Your task to perform on an android device: Open Maps and search for coffee Image 0: 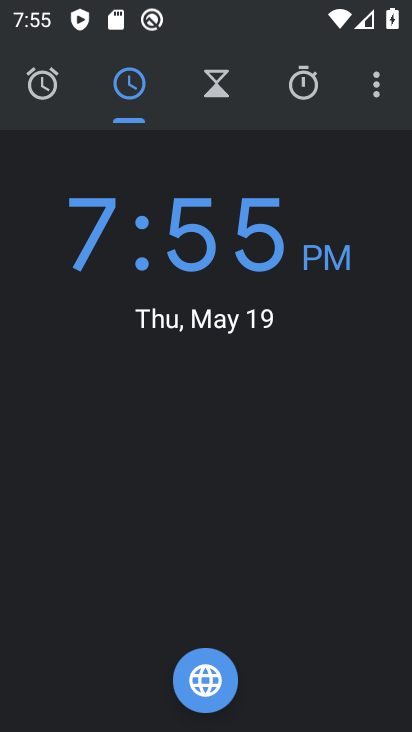
Step 0: press home button
Your task to perform on an android device: Open Maps and search for coffee Image 1: 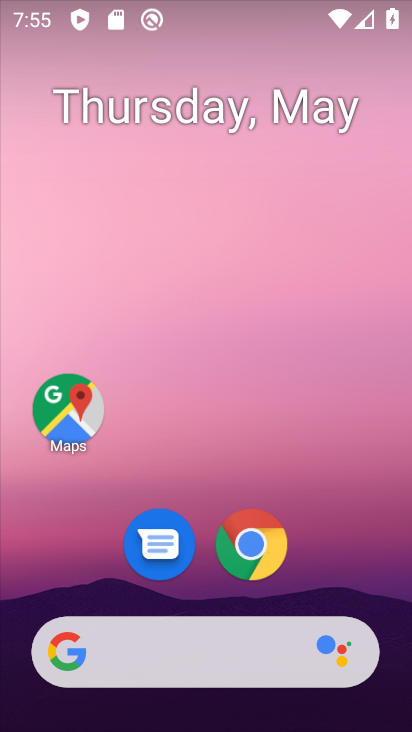
Step 1: click (80, 414)
Your task to perform on an android device: Open Maps and search for coffee Image 2: 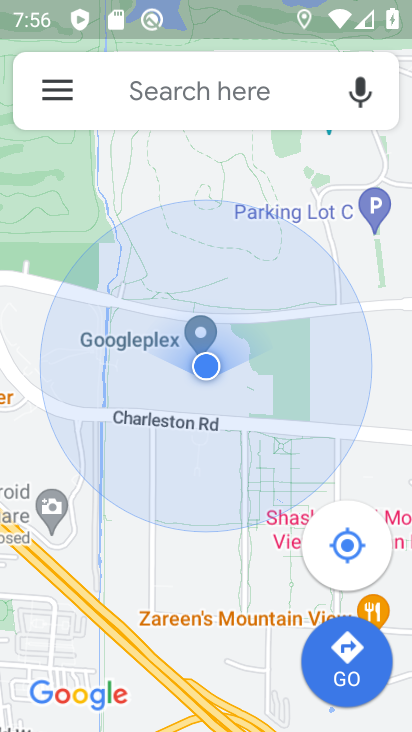
Step 2: click (251, 91)
Your task to perform on an android device: Open Maps and search for coffee Image 3: 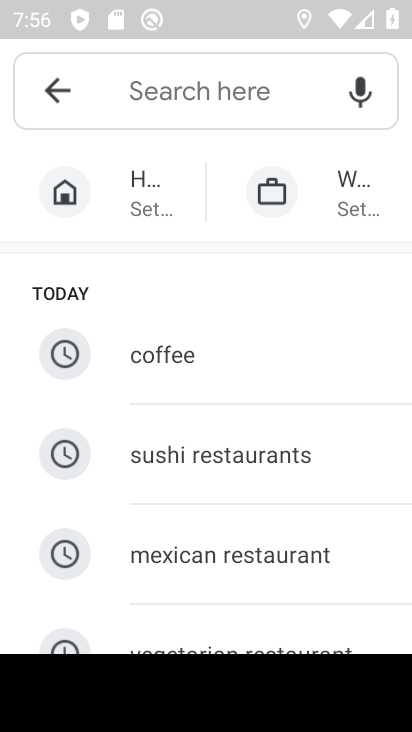
Step 3: type "coffee"
Your task to perform on an android device: Open Maps and search for coffee Image 4: 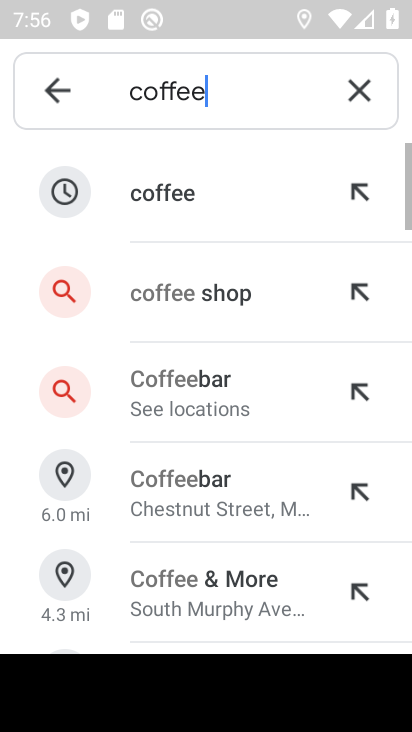
Step 4: click (113, 122)
Your task to perform on an android device: Open Maps and search for coffee Image 5: 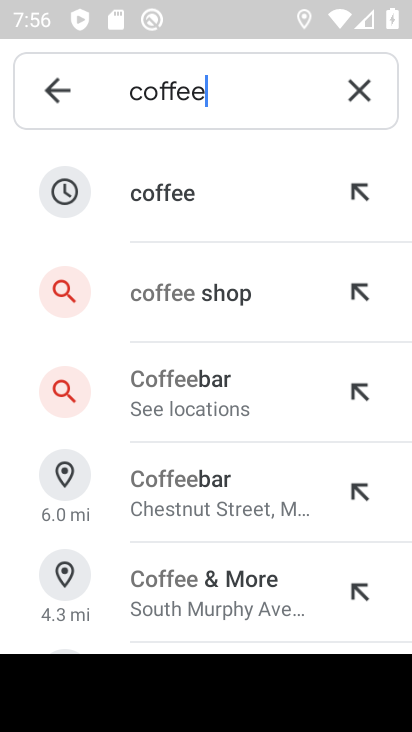
Step 5: click (171, 196)
Your task to perform on an android device: Open Maps and search for coffee Image 6: 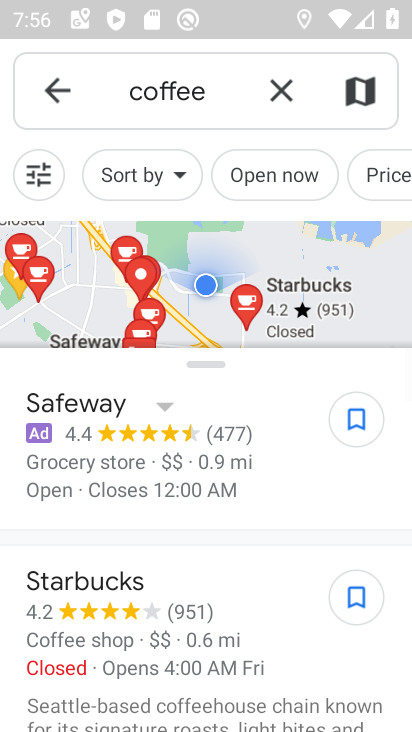
Step 6: task complete